Your task to perform on an android device: What is the recent news? Image 0: 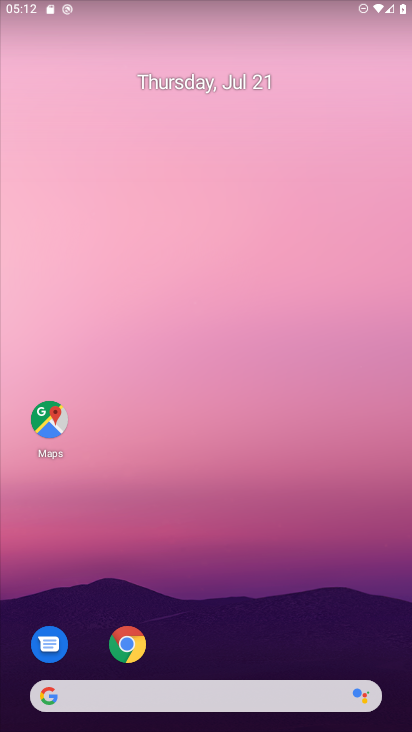
Step 0: click (152, 702)
Your task to perform on an android device: What is the recent news? Image 1: 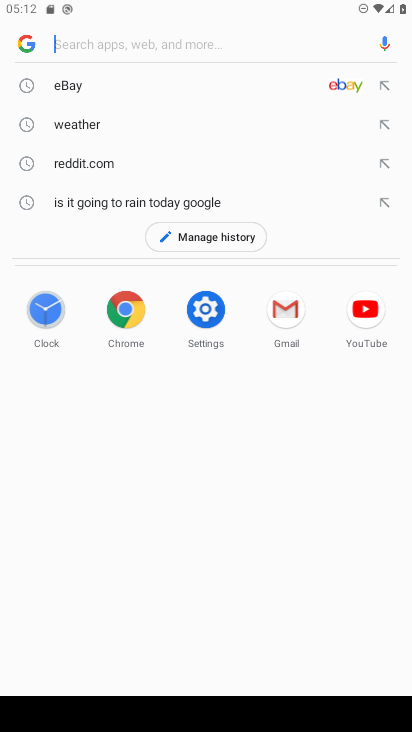
Step 1: type "recent news"
Your task to perform on an android device: What is the recent news? Image 2: 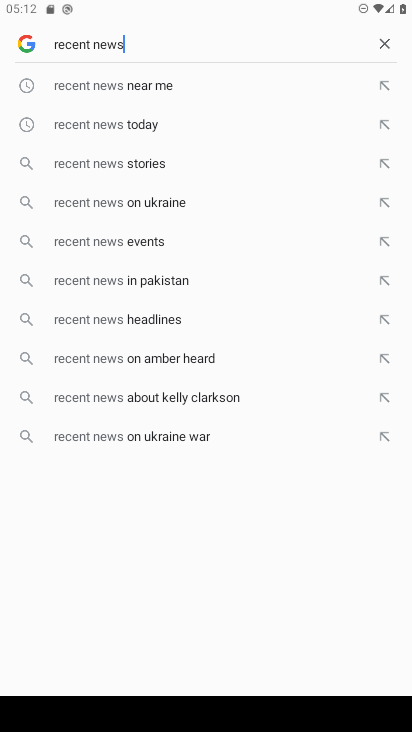
Step 2: click (155, 89)
Your task to perform on an android device: What is the recent news? Image 3: 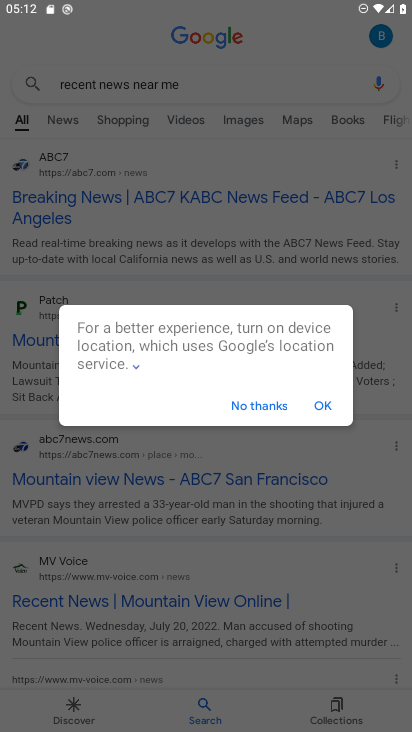
Step 3: task complete